Your task to perform on an android device: Open settings Image 0: 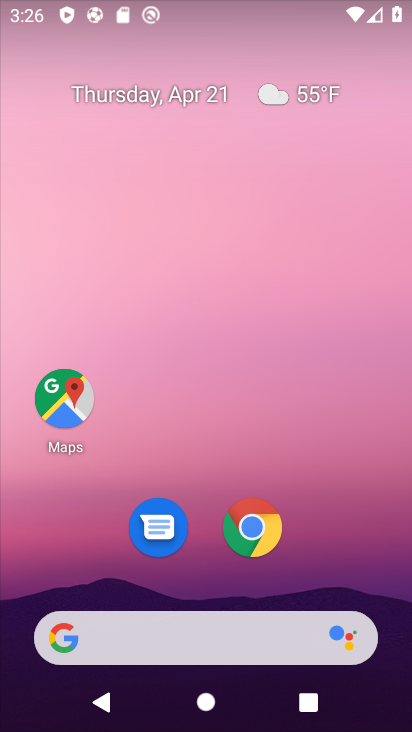
Step 0: drag from (383, 588) to (296, 212)
Your task to perform on an android device: Open settings Image 1: 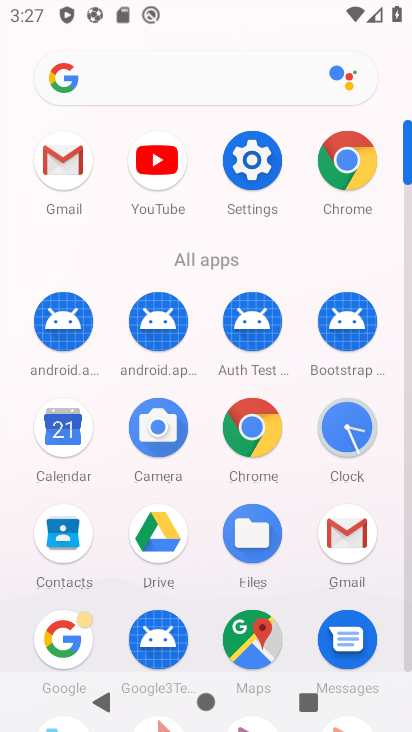
Step 1: click (264, 171)
Your task to perform on an android device: Open settings Image 2: 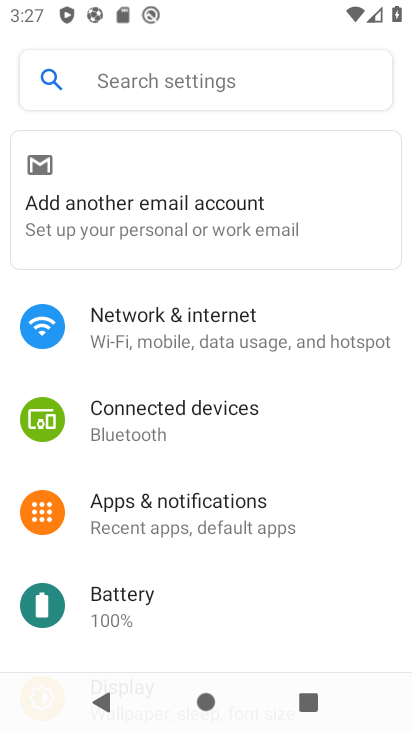
Step 2: task complete